Your task to perform on an android device: Do I have any events today? Image 0: 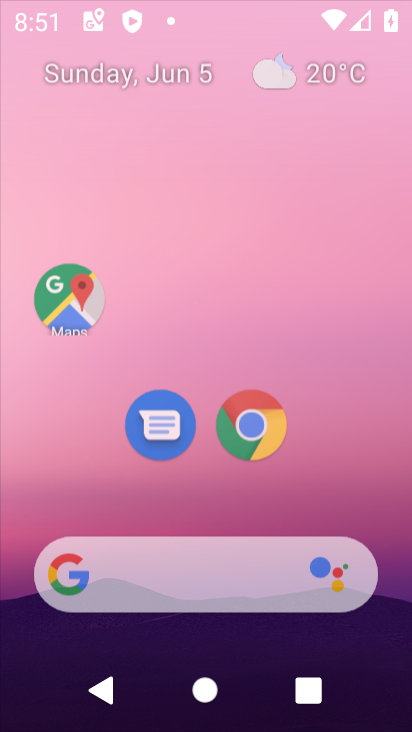
Step 0: drag from (325, 625) to (306, 43)
Your task to perform on an android device: Do I have any events today? Image 1: 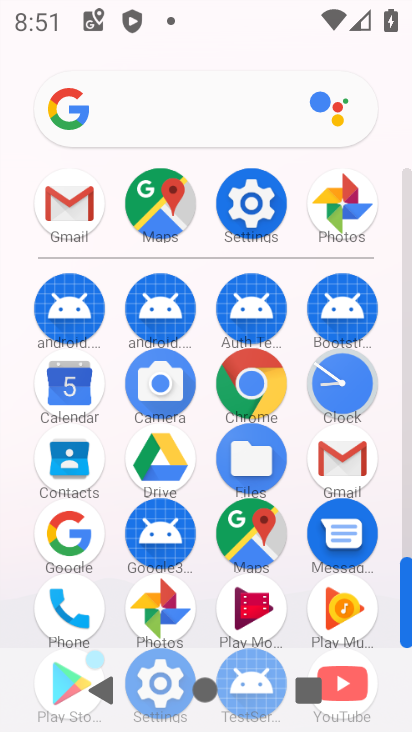
Step 1: click (58, 380)
Your task to perform on an android device: Do I have any events today? Image 2: 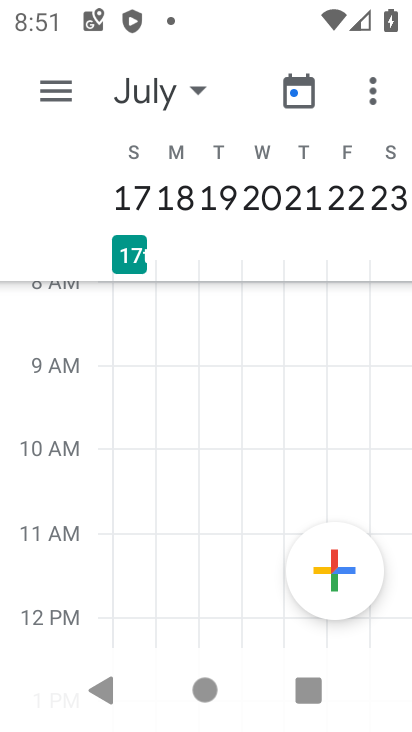
Step 2: click (201, 86)
Your task to perform on an android device: Do I have any events today? Image 3: 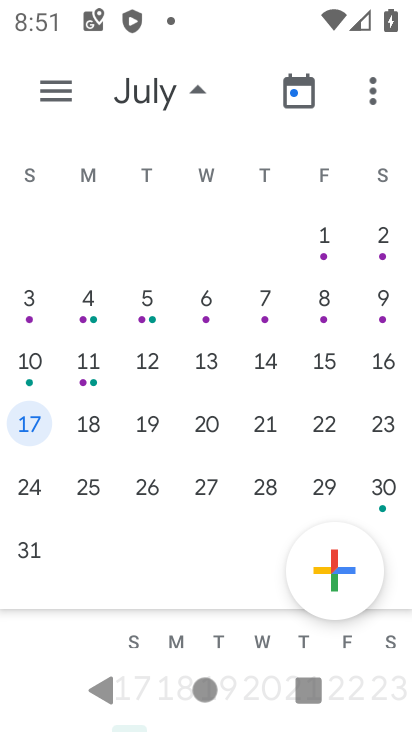
Step 3: drag from (100, 374) to (408, 294)
Your task to perform on an android device: Do I have any events today? Image 4: 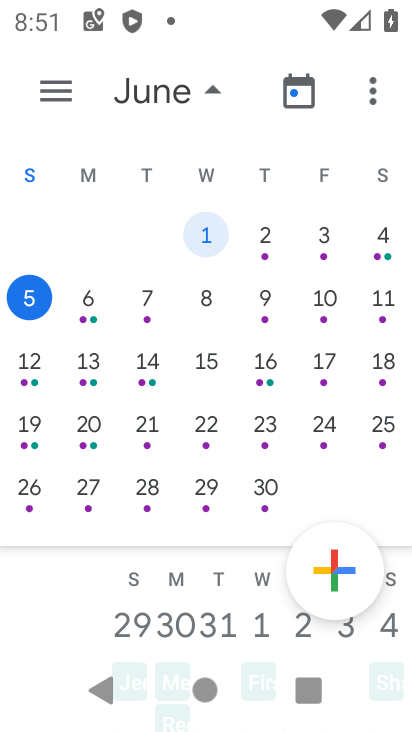
Step 4: click (73, 302)
Your task to perform on an android device: Do I have any events today? Image 5: 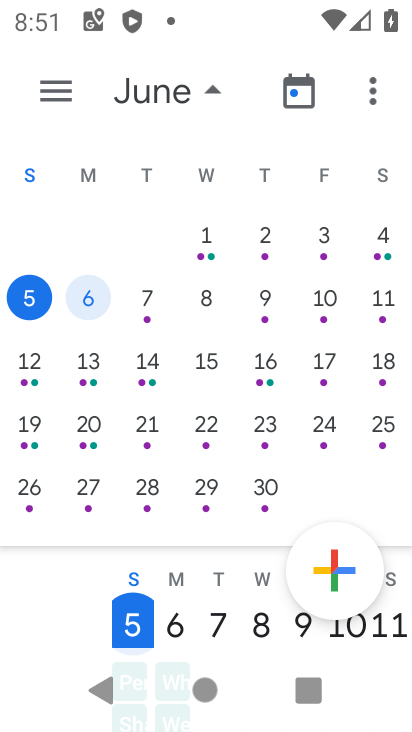
Step 5: task complete